Your task to perform on an android device: View the shopping cart on costco.com. Search for "jbl charge 4" on costco.com, select the first entry, and add it to the cart. Image 0: 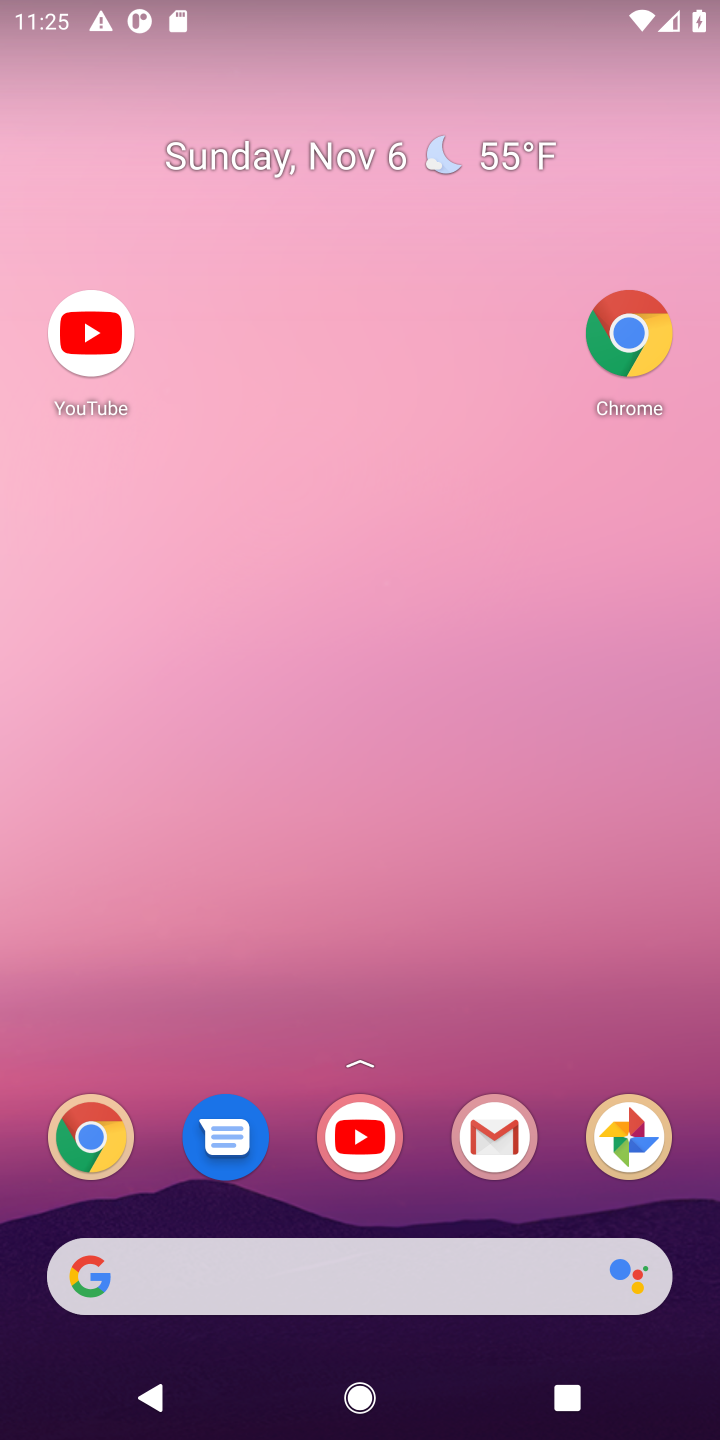
Step 0: drag from (452, 1216) to (163, 78)
Your task to perform on an android device: View the shopping cart on costco.com. Search for "jbl charge 4" on costco.com, select the first entry, and add it to the cart. Image 1: 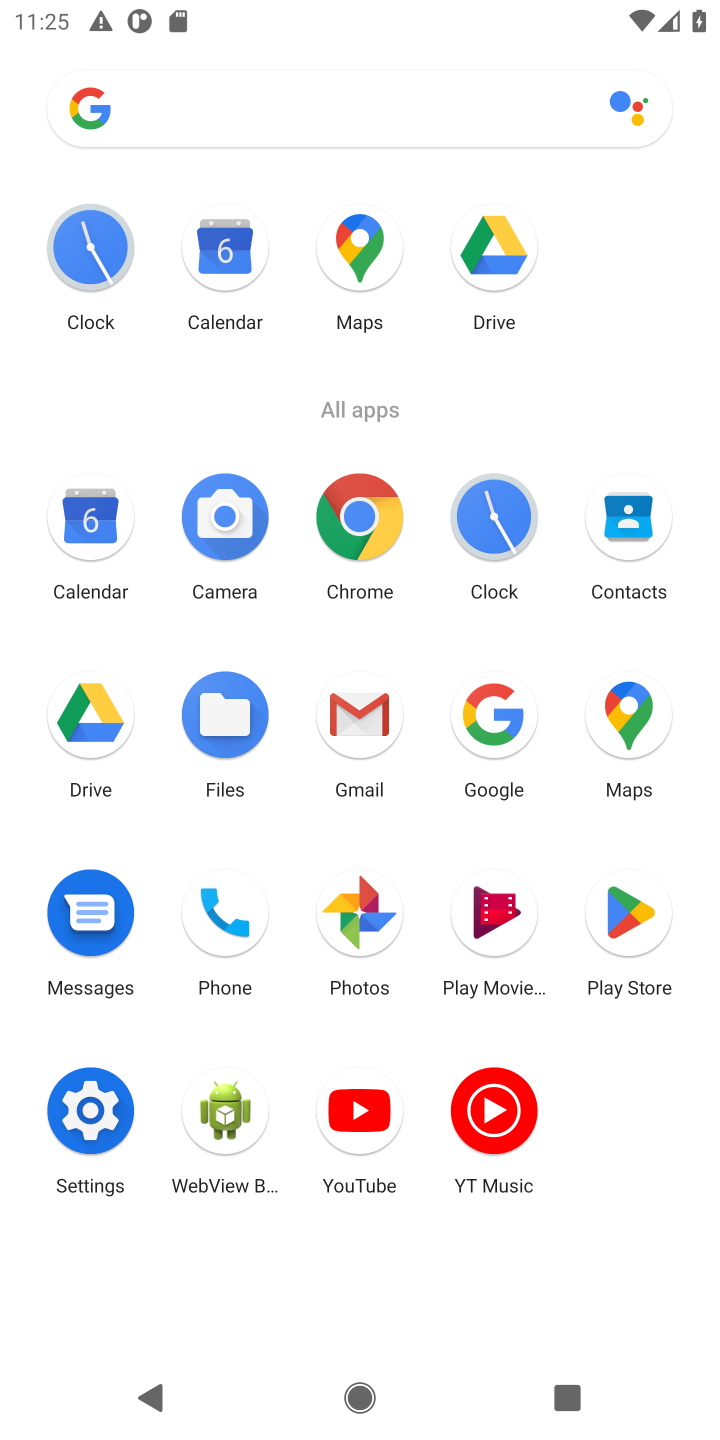
Step 1: click (363, 511)
Your task to perform on an android device: View the shopping cart on costco.com. Search for "jbl charge 4" on costco.com, select the first entry, and add it to the cart. Image 2: 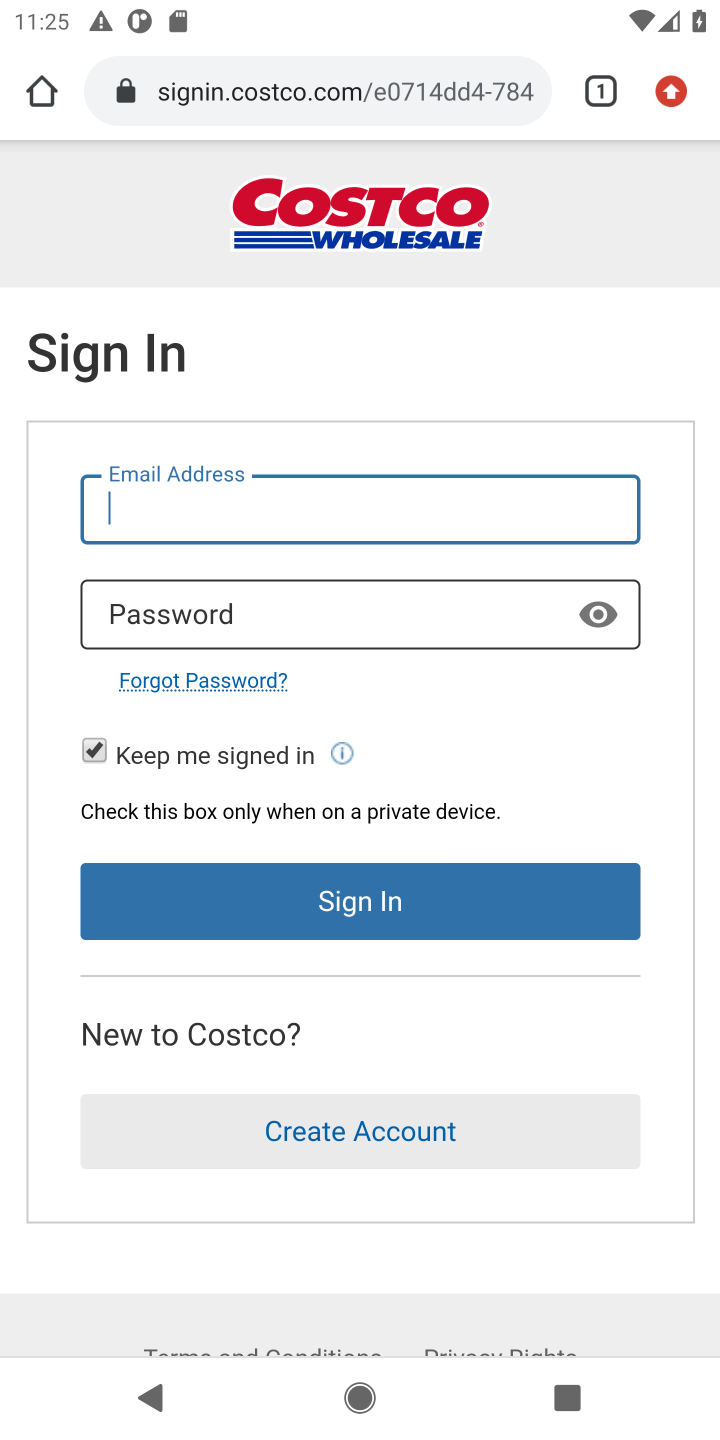
Step 2: click (419, 94)
Your task to perform on an android device: View the shopping cart on costco.com. Search for "jbl charge 4" on costco.com, select the first entry, and add it to the cart. Image 3: 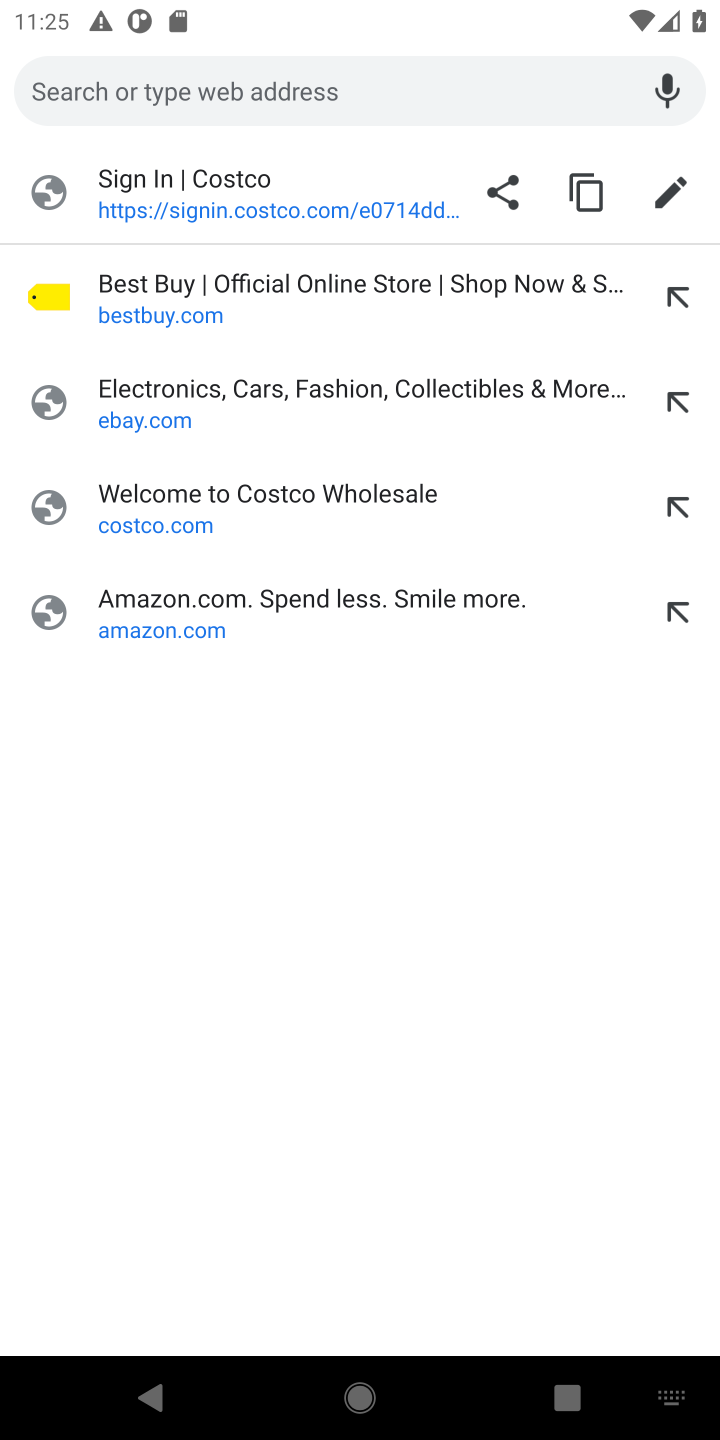
Step 3: type "costco.com"
Your task to perform on an android device: View the shopping cart on costco.com. Search for "jbl charge 4" on costco.com, select the first entry, and add it to the cart. Image 4: 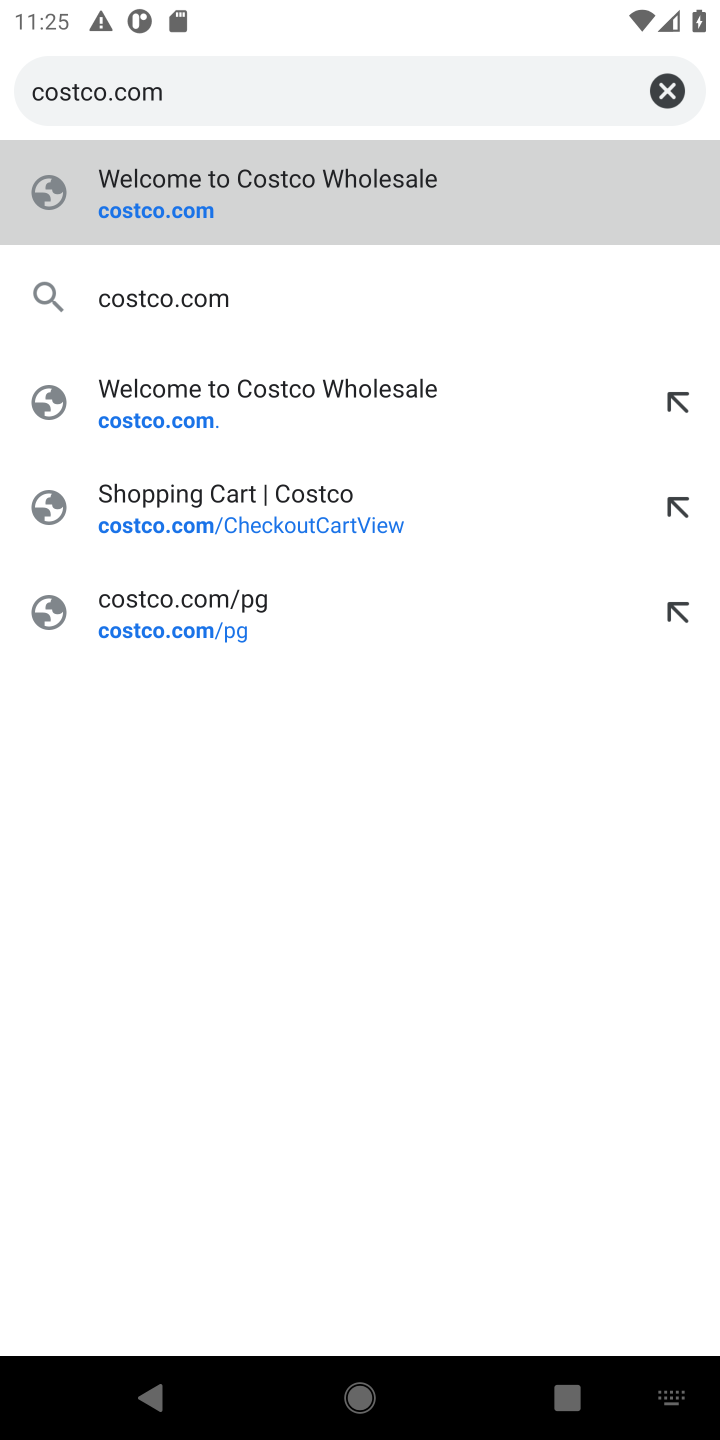
Step 4: press enter
Your task to perform on an android device: View the shopping cart on costco.com. Search for "jbl charge 4" on costco.com, select the first entry, and add it to the cart. Image 5: 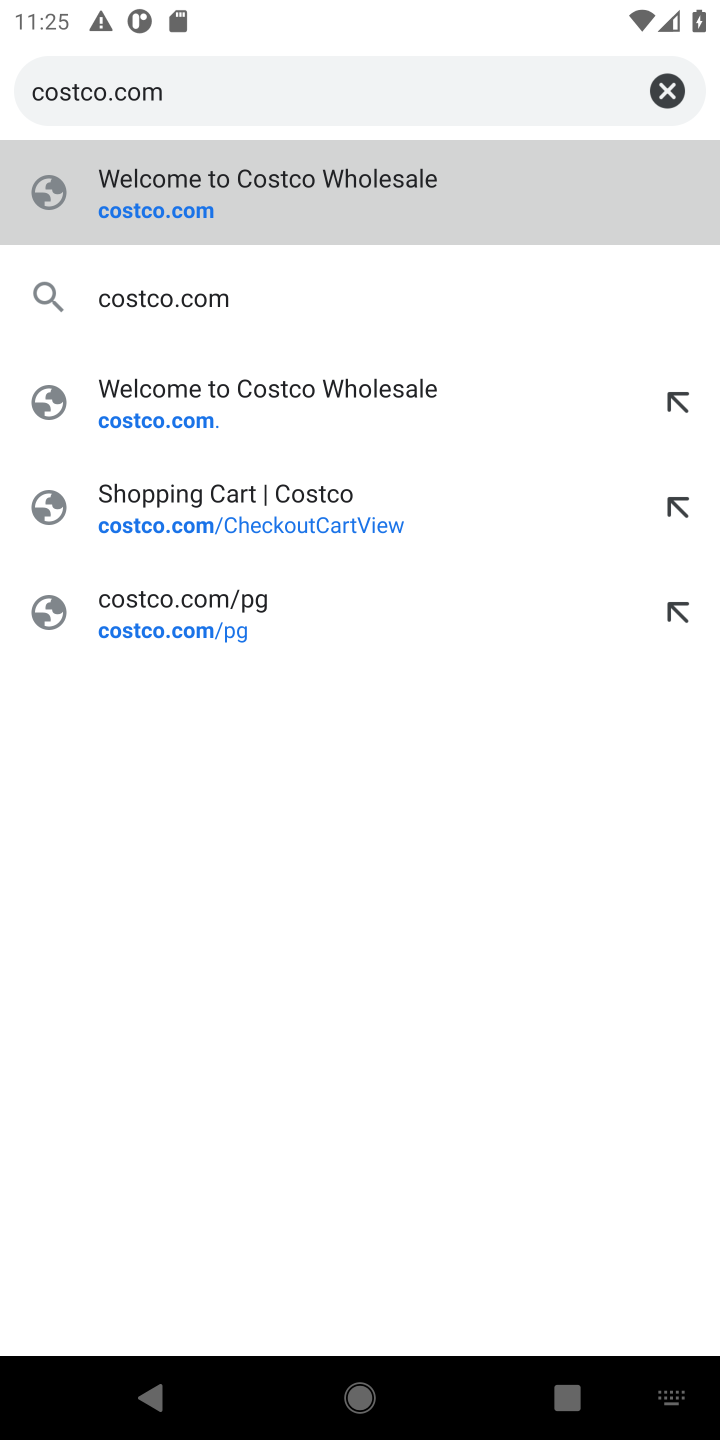
Step 5: type "s"
Your task to perform on an android device: View the shopping cart on costco.com. Search for "jbl charge 4" on costco.com, select the first entry, and add it to the cart. Image 6: 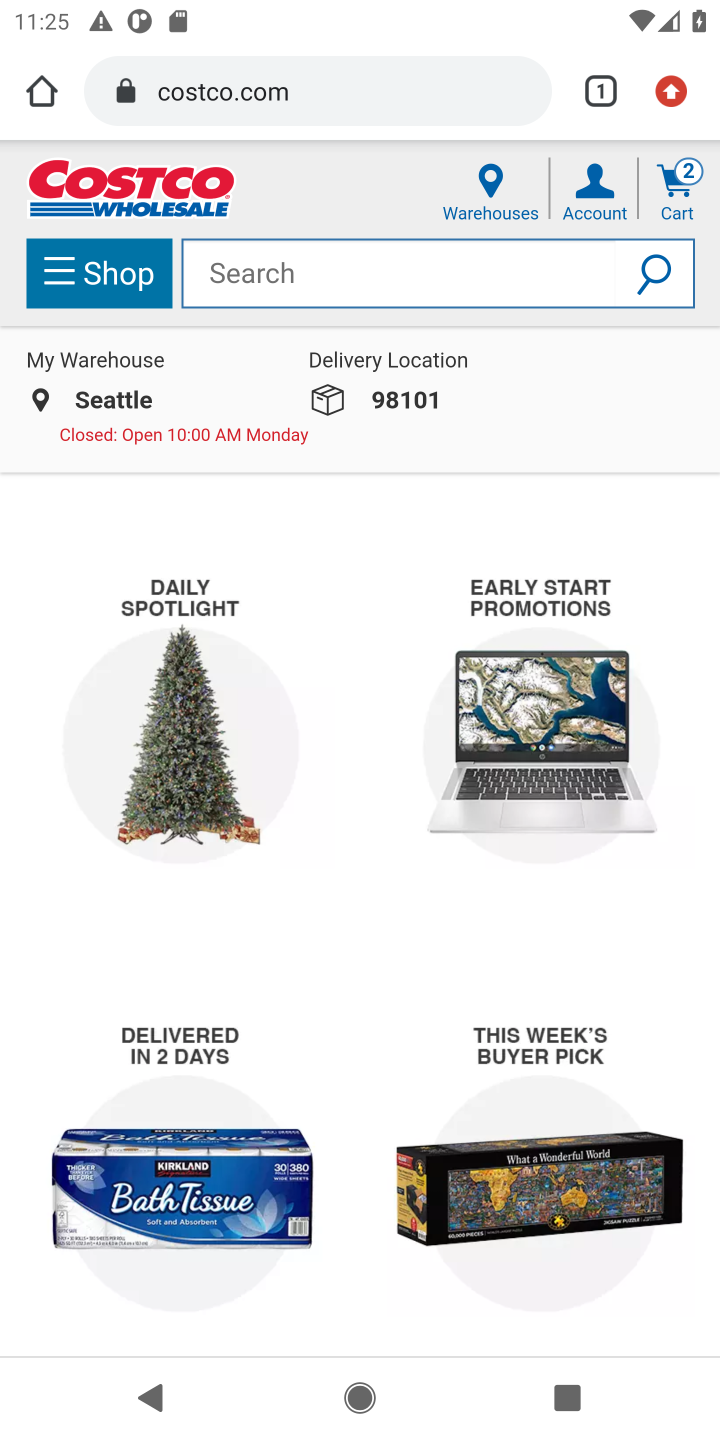
Step 6: click (688, 163)
Your task to perform on an android device: View the shopping cart on costco.com. Search for "jbl charge 4" on costco.com, select the first entry, and add it to the cart. Image 7: 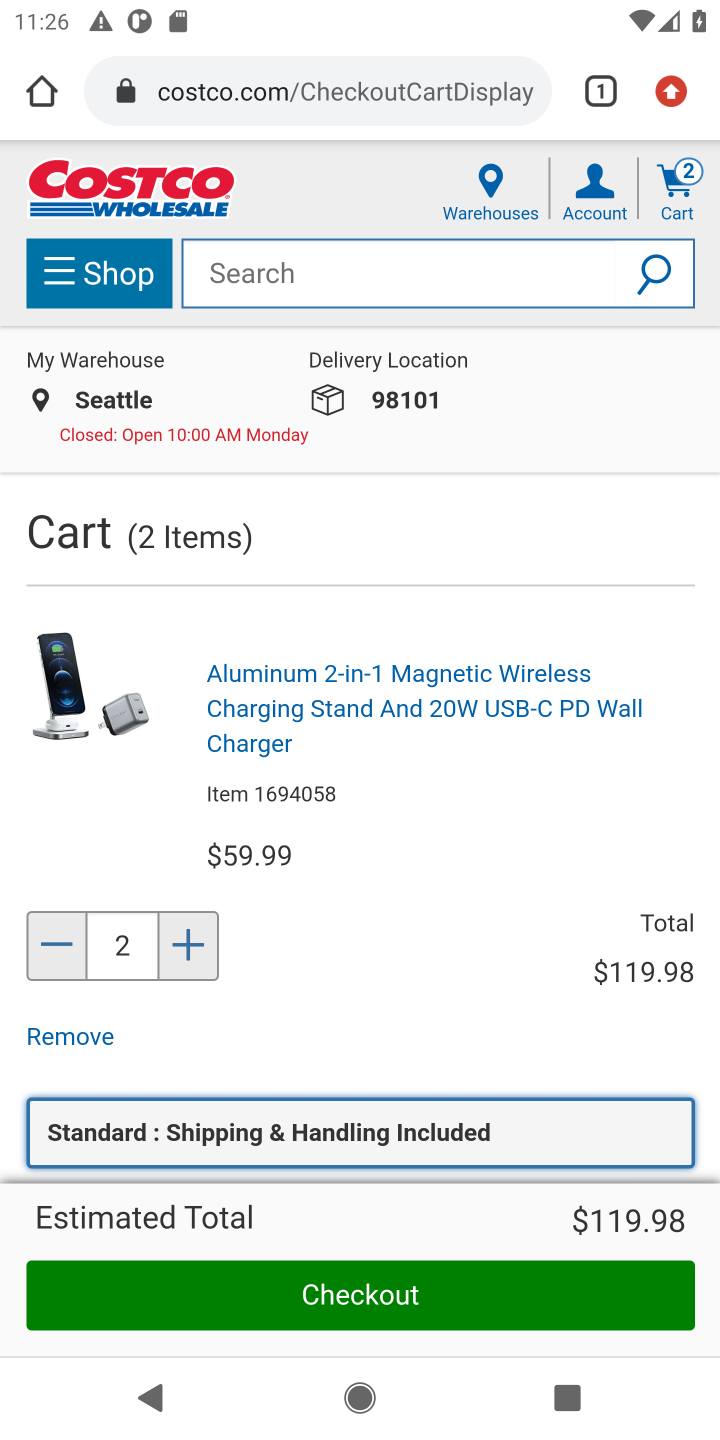
Step 7: click (309, 277)
Your task to perform on an android device: View the shopping cart on costco.com. Search for "jbl charge 4" on costco.com, select the first entry, and add it to the cart. Image 8: 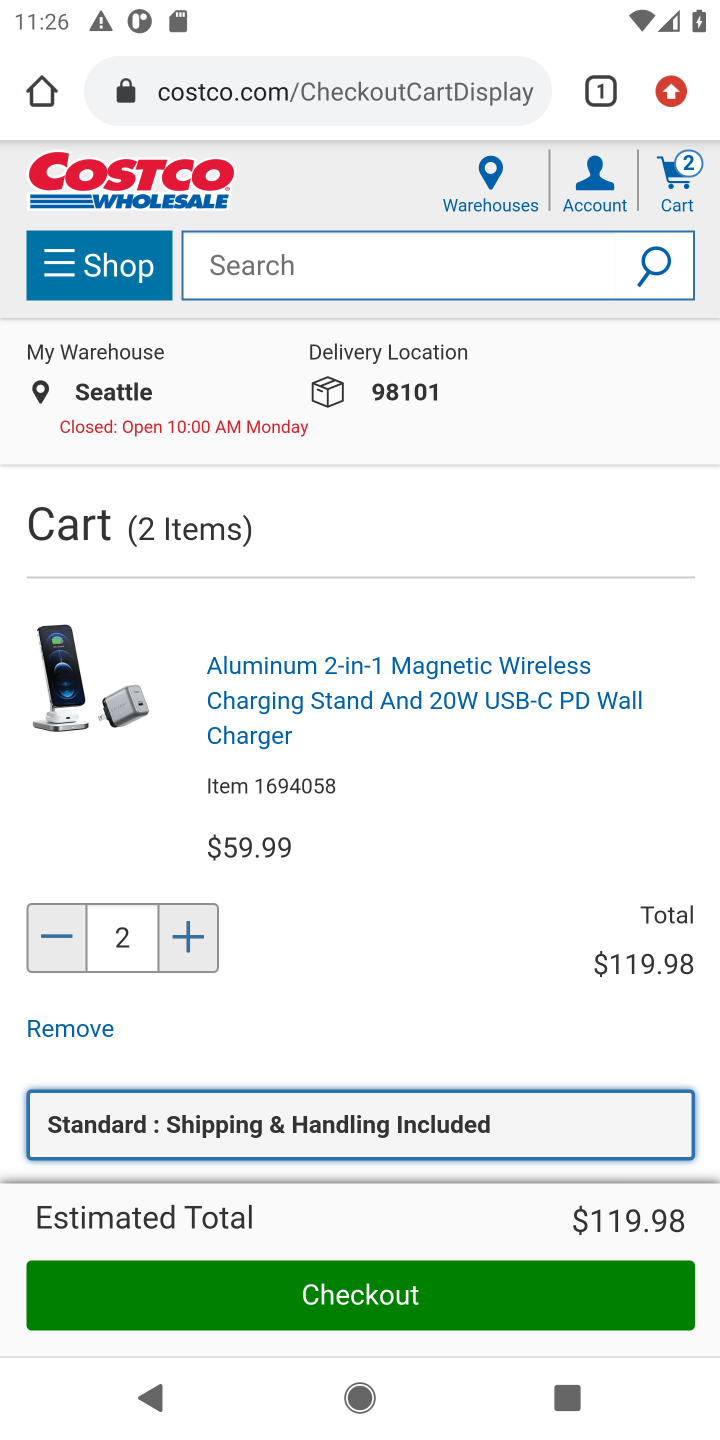
Step 8: click (362, 262)
Your task to perform on an android device: View the shopping cart on costco.com. Search for "jbl charge 4" on costco.com, select the first entry, and add it to the cart. Image 9: 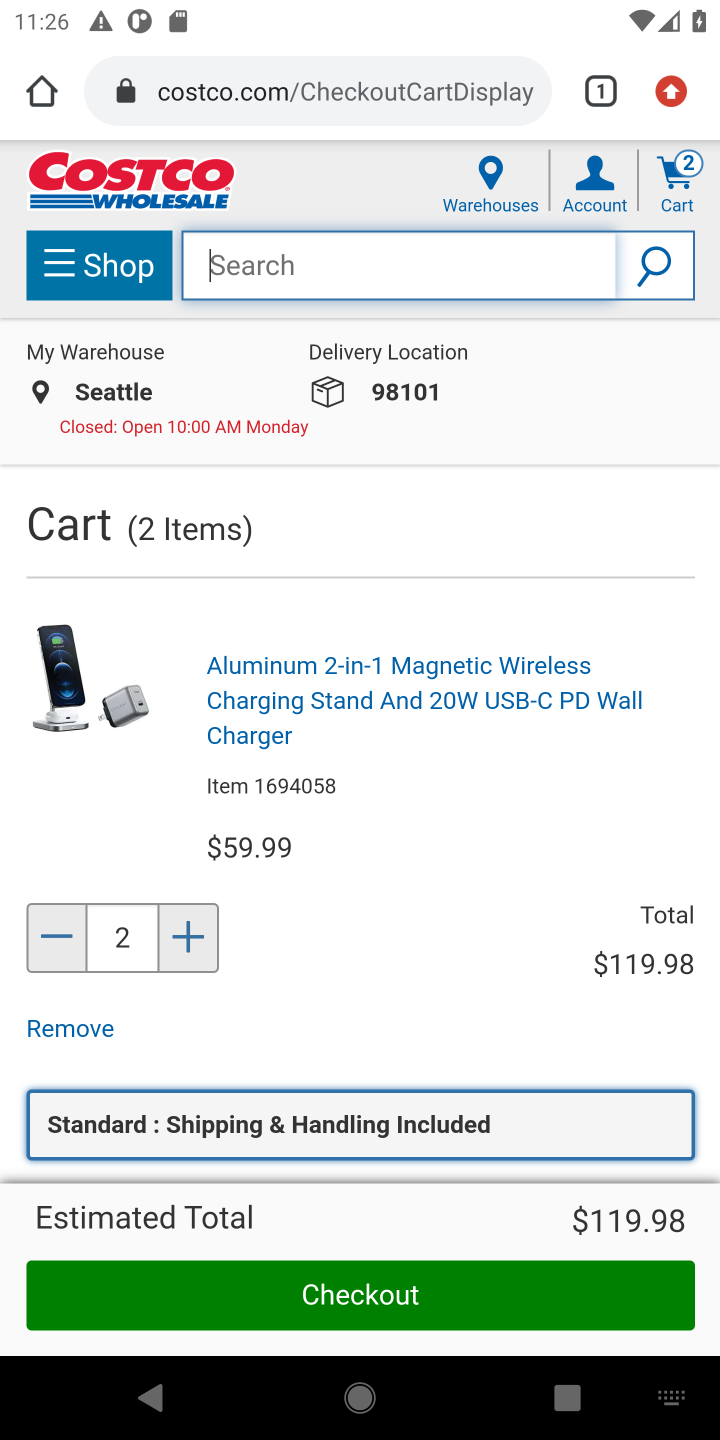
Step 9: type "jbl charge 4"
Your task to perform on an android device: View the shopping cart on costco.com. Search for "jbl charge 4" on costco.com, select the first entry, and add it to the cart. Image 10: 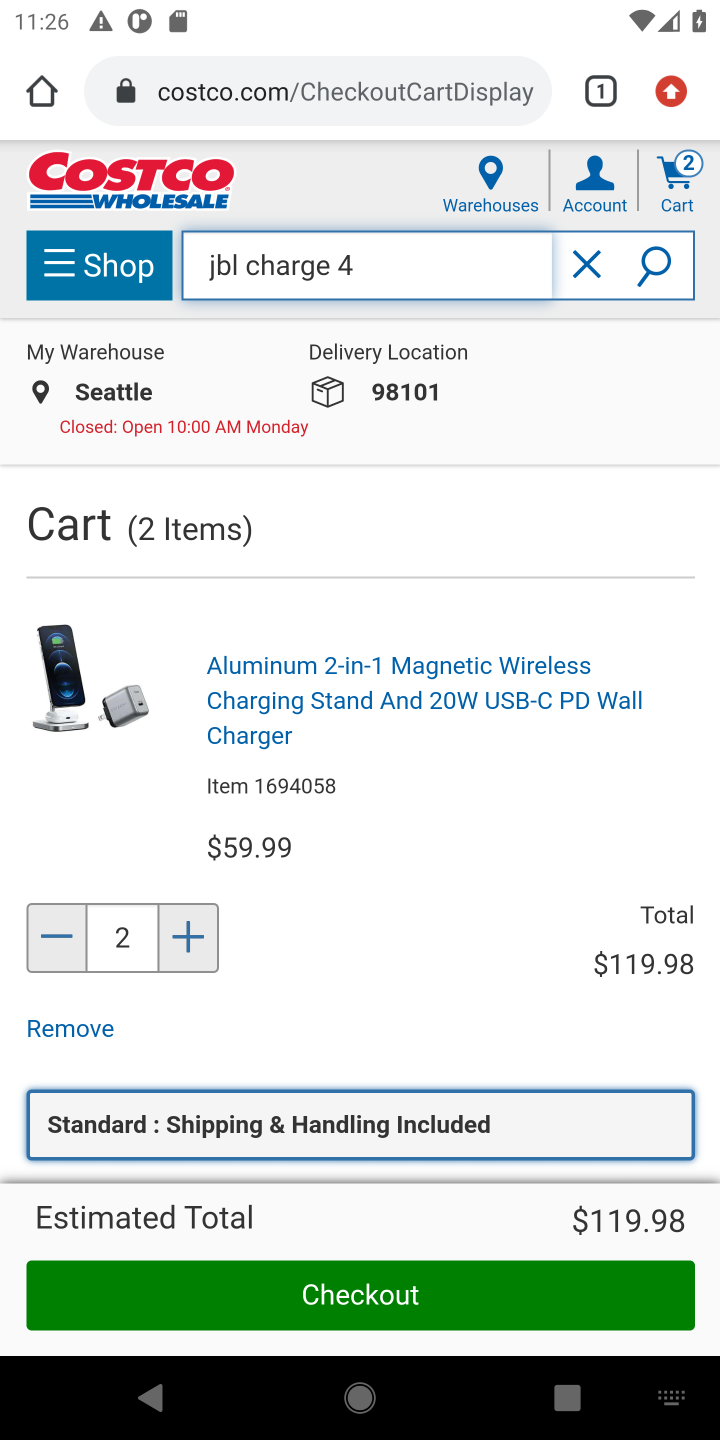
Step 10: press enter
Your task to perform on an android device: View the shopping cart on costco.com. Search for "jbl charge 4" on costco.com, select the first entry, and add it to the cart. Image 11: 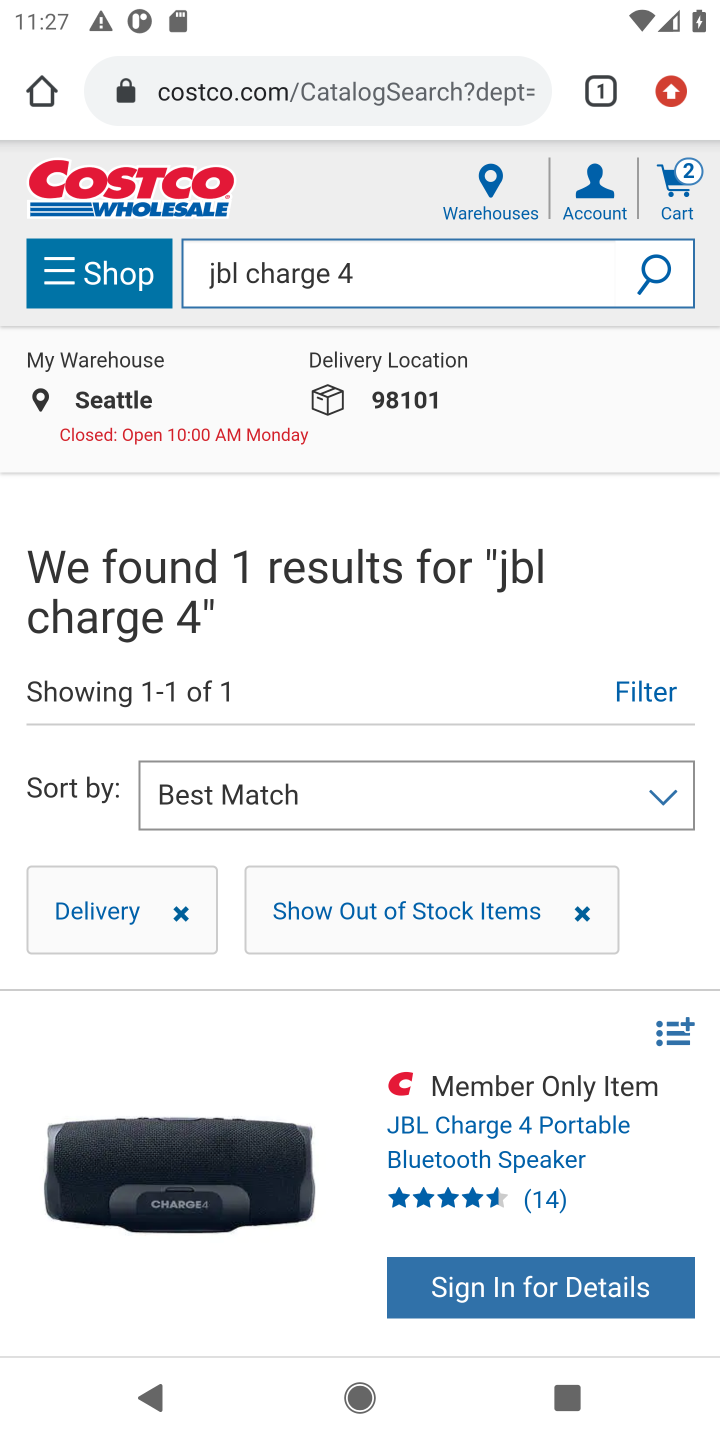
Step 11: drag from (413, 1124) to (480, 553)
Your task to perform on an android device: View the shopping cart on costco.com. Search for "jbl charge 4" on costco.com, select the first entry, and add it to the cart. Image 12: 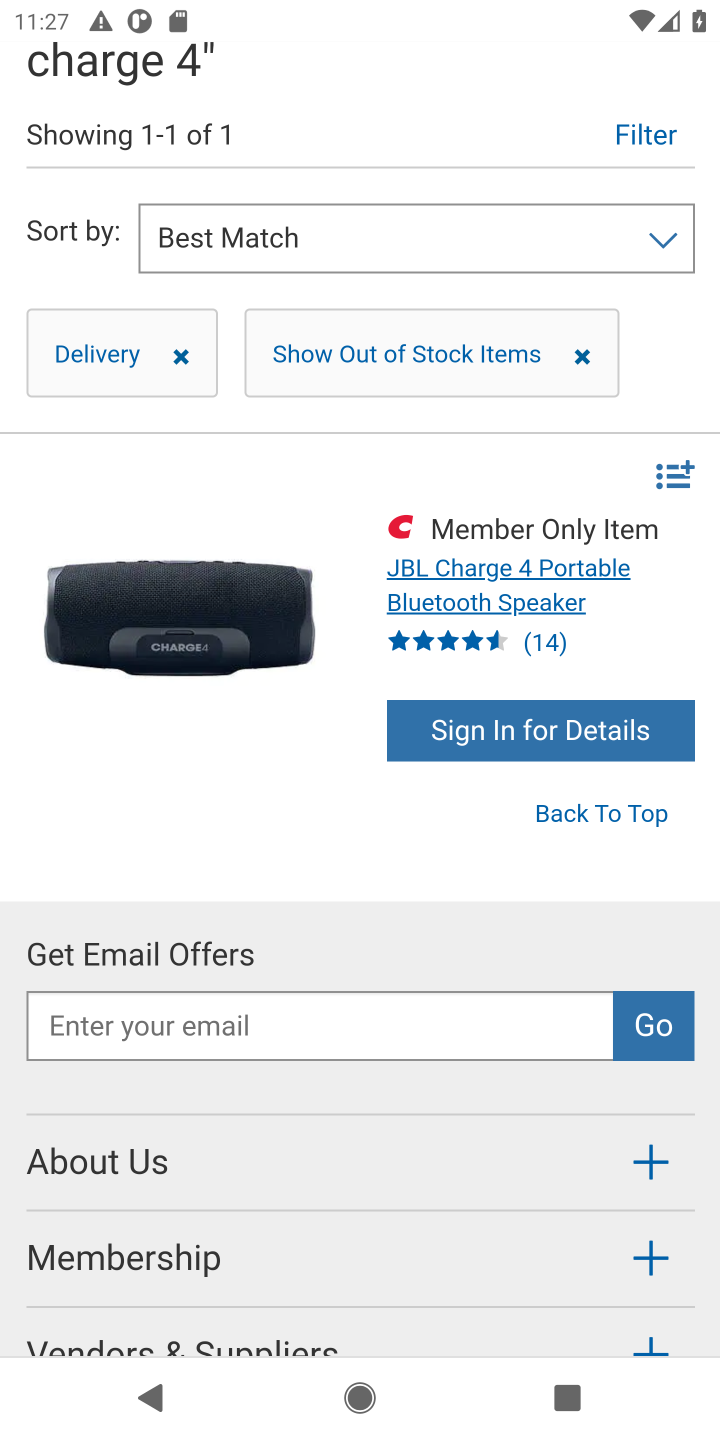
Step 12: click (565, 603)
Your task to perform on an android device: View the shopping cart on costco.com. Search for "jbl charge 4" on costco.com, select the first entry, and add it to the cart. Image 13: 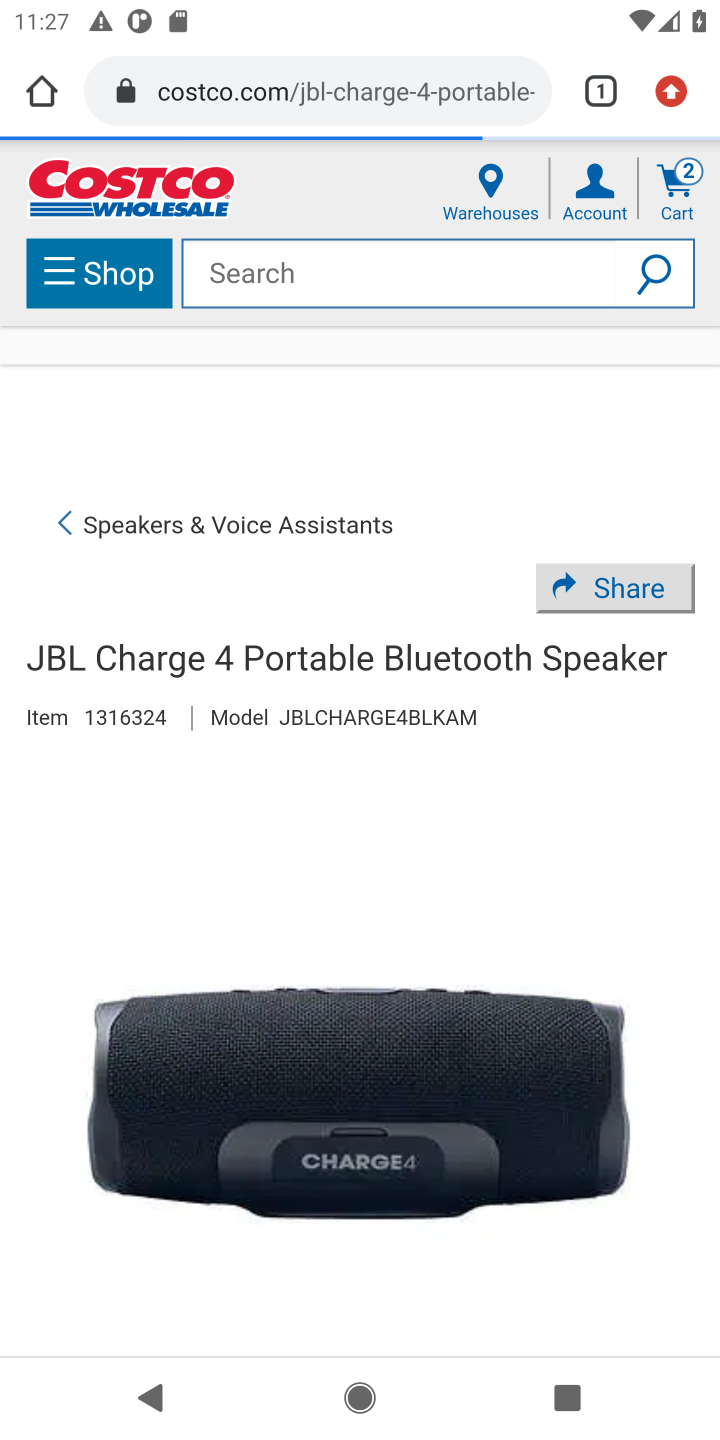
Step 13: task complete